Your task to perform on an android device: Open Chrome and go to the settings page Image 0: 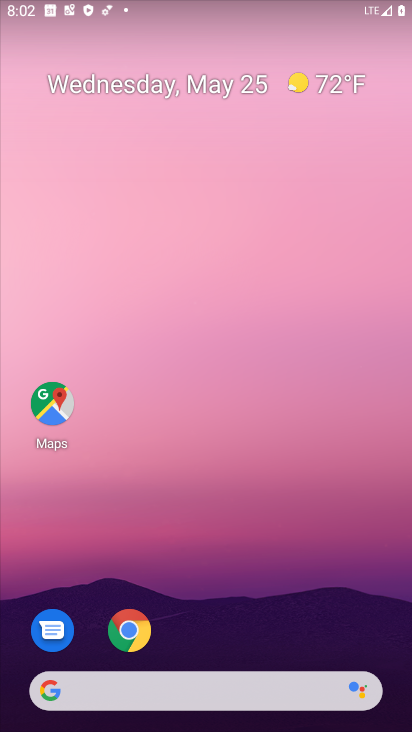
Step 0: click (139, 610)
Your task to perform on an android device: Open Chrome and go to the settings page Image 1: 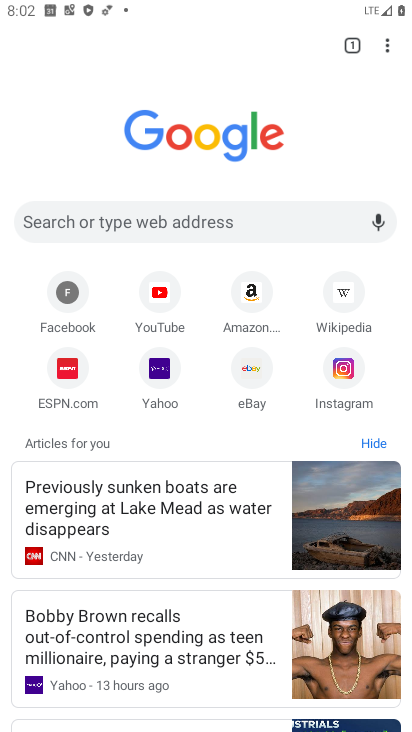
Step 1: click (390, 39)
Your task to perform on an android device: Open Chrome and go to the settings page Image 2: 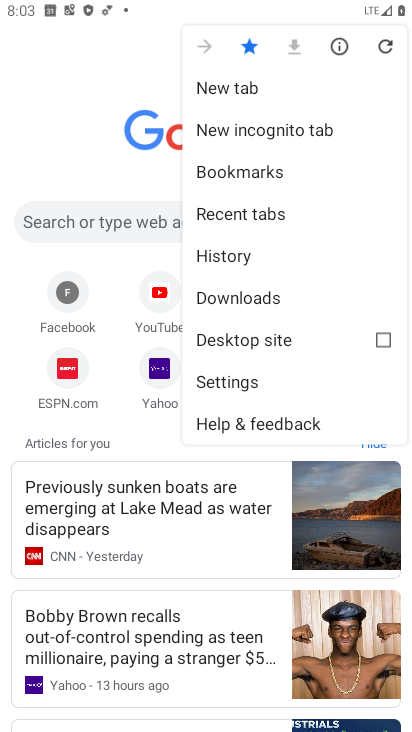
Step 2: click (281, 378)
Your task to perform on an android device: Open Chrome and go to the settings page Image 3: 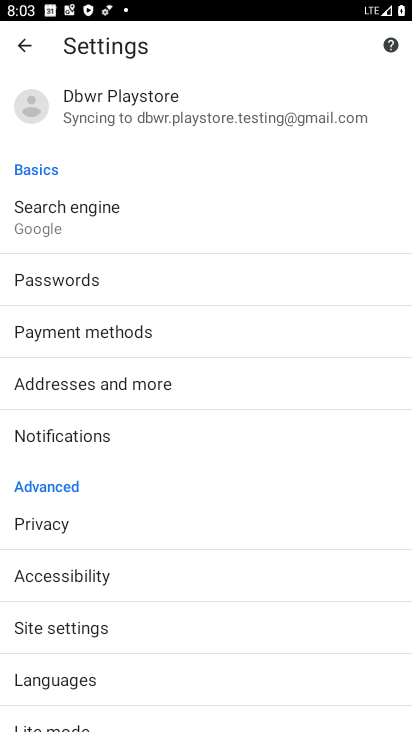
Step 3: task complete